Your task to perform on an android device: empty trash in the gmail app Image 0: 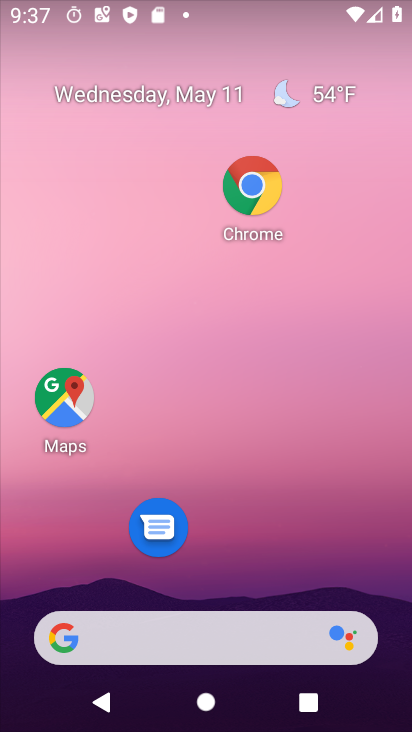
Step 0: drag from (248, 553) to (235, 89)
Your task to perform on an android device: empty trash in the gmail app Image 1: 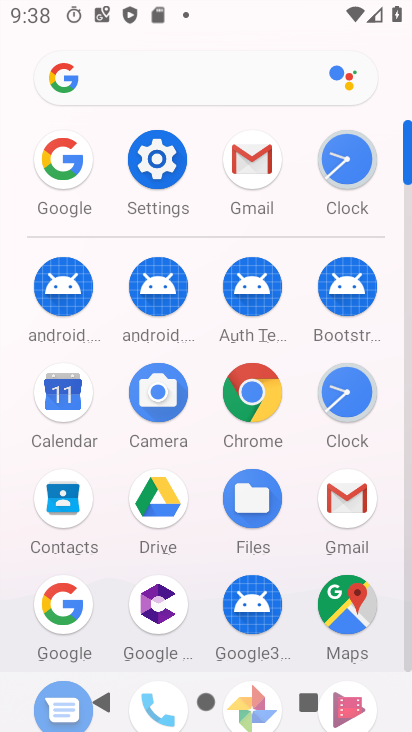
Step 1: click (261, 154)
Your task to perform on an android device: empty trash in the gmail app Image 2: 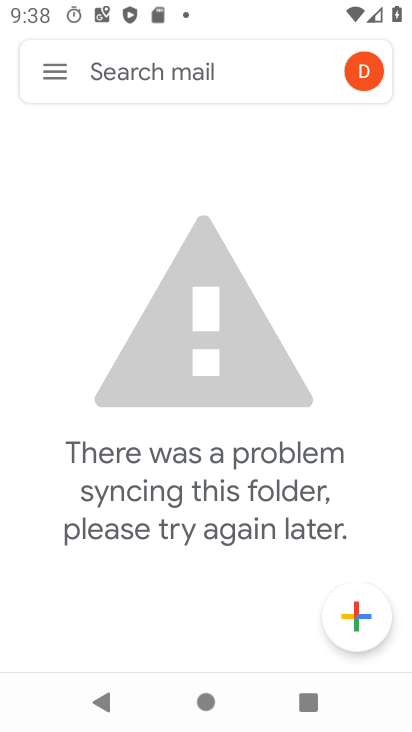
Step 2: click (48, 61)
Your task to perform on an android device: empty trash in the gmail app Image 3: 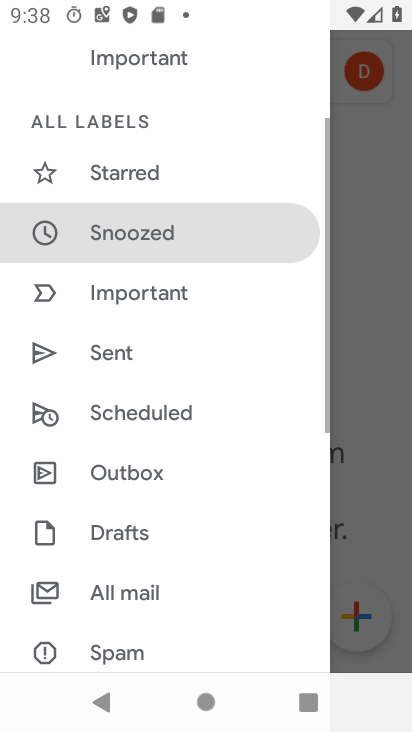
Step 3: drag from (142, 553) to (161, 127)
Your task to perform on an android device: empty trash in the gmail app Image 4: 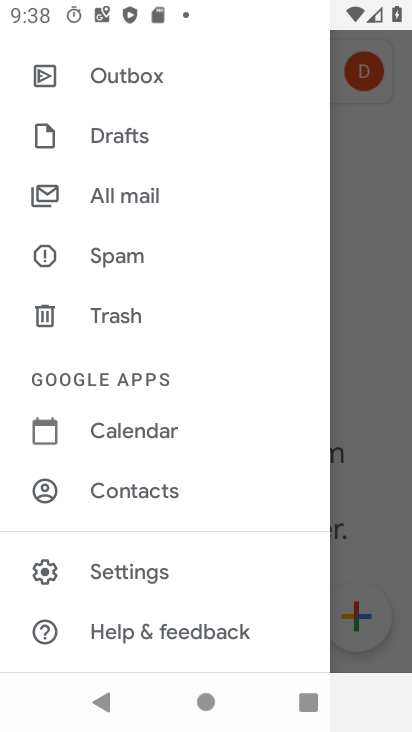
Step 4: click (131, 318)
Your task to perform on an android device: empty trash in the gmail app Image 5: 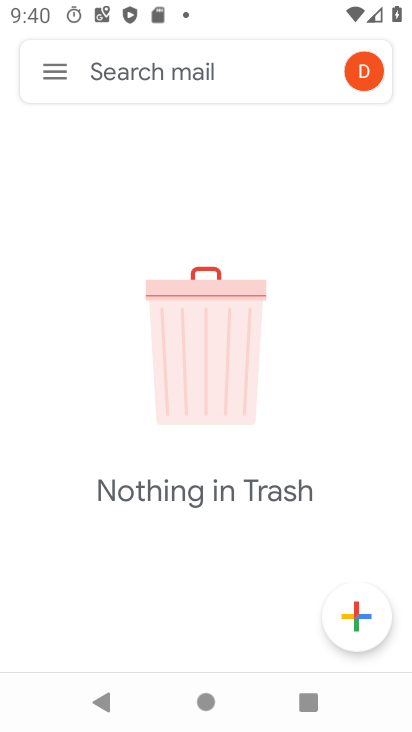
Step 5: task complete